Your task to perform on an android device: open app "AliExpress" (install if not already installed) Image 0: 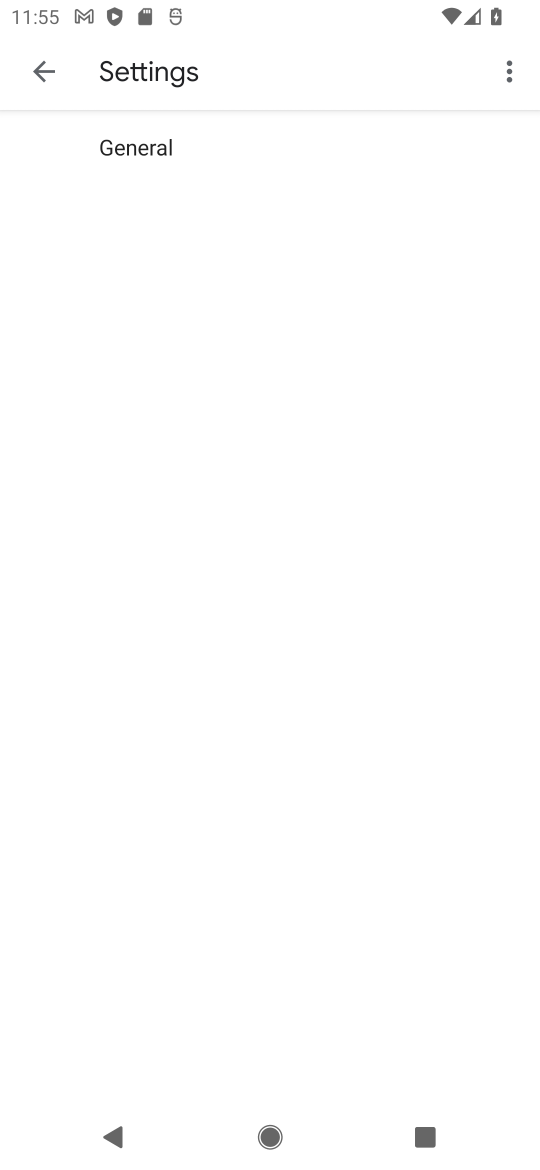
Step 0: press home button
Your task to perform on an android device: open app "AliExpress" (install if not already installed) Image 1: 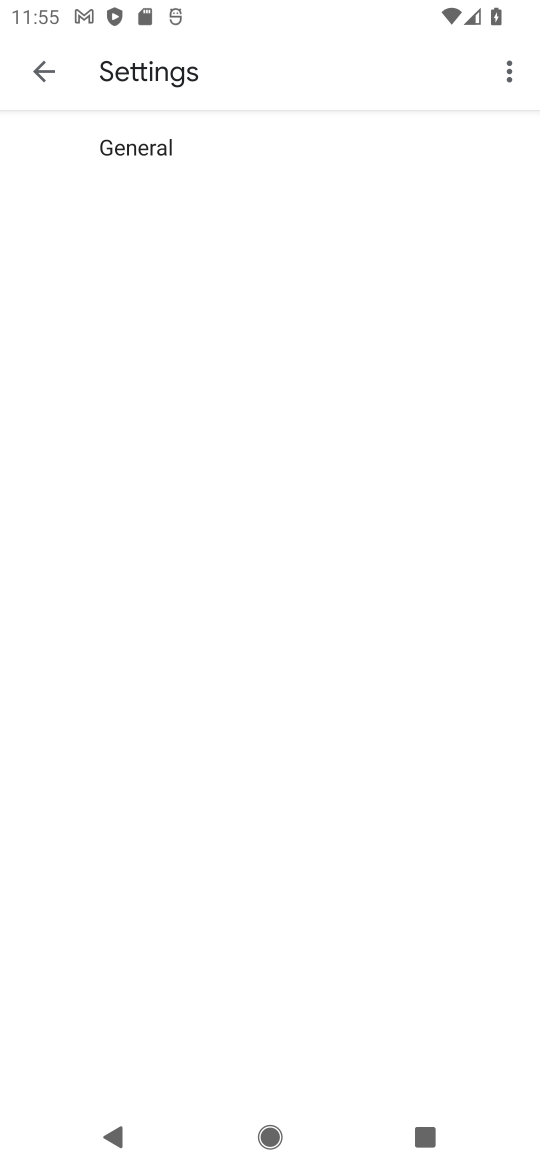
Step 1: press home button
Your task to perform on an android device: open app "AliExpress" (install if not already installed) Image 2: 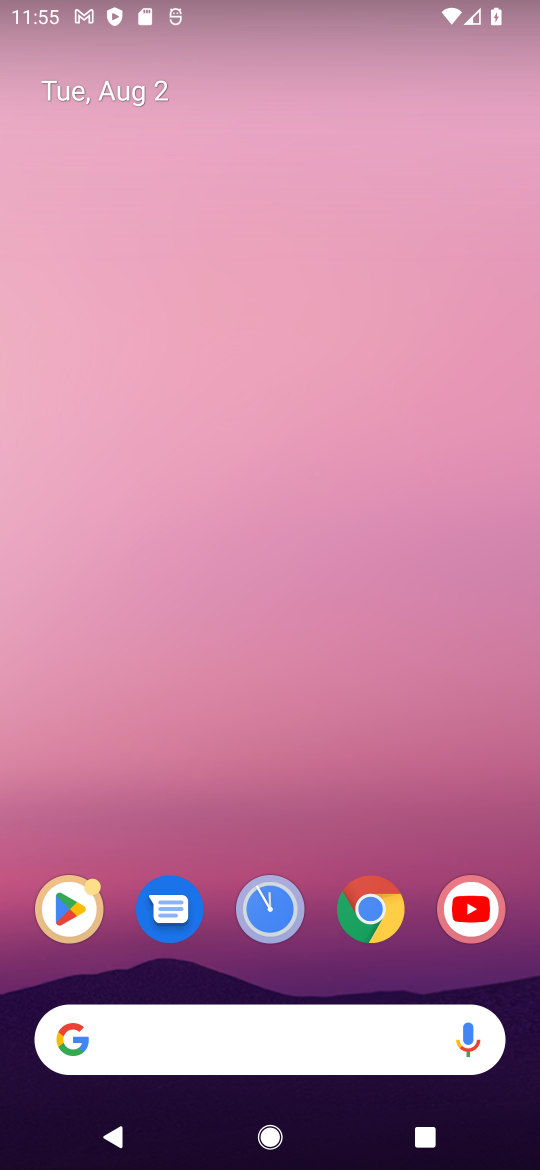
Step 2: click (89, 900)
Your task to perform on an android device: open app "AliExpress" (install if not already installed) Image 3: 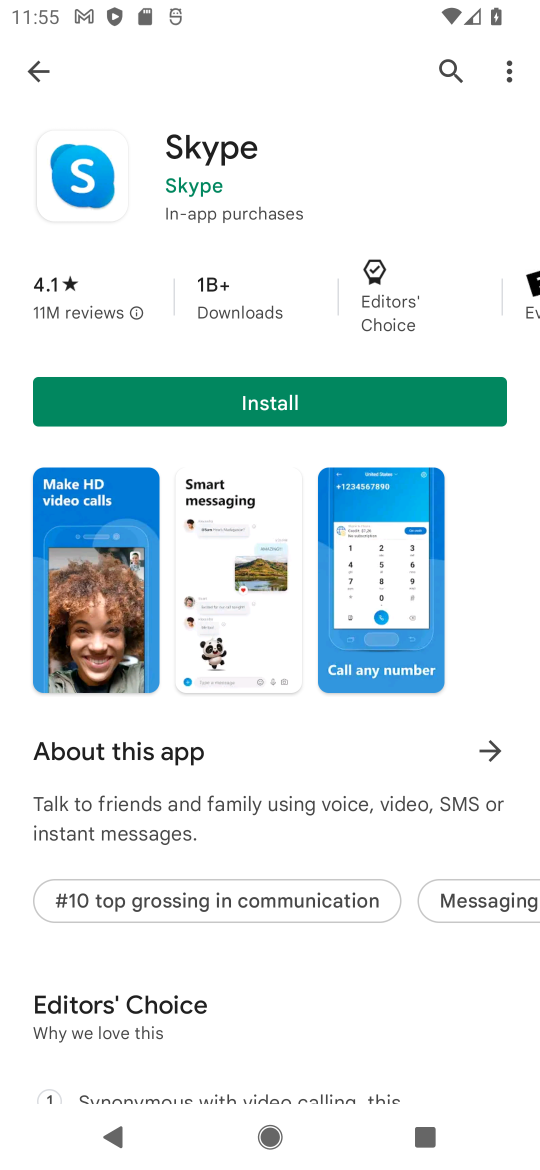
Step 3: click (457, 59)
Your task to perform on an android device: open app "AliExpress" (install if not already installed) Image 4: 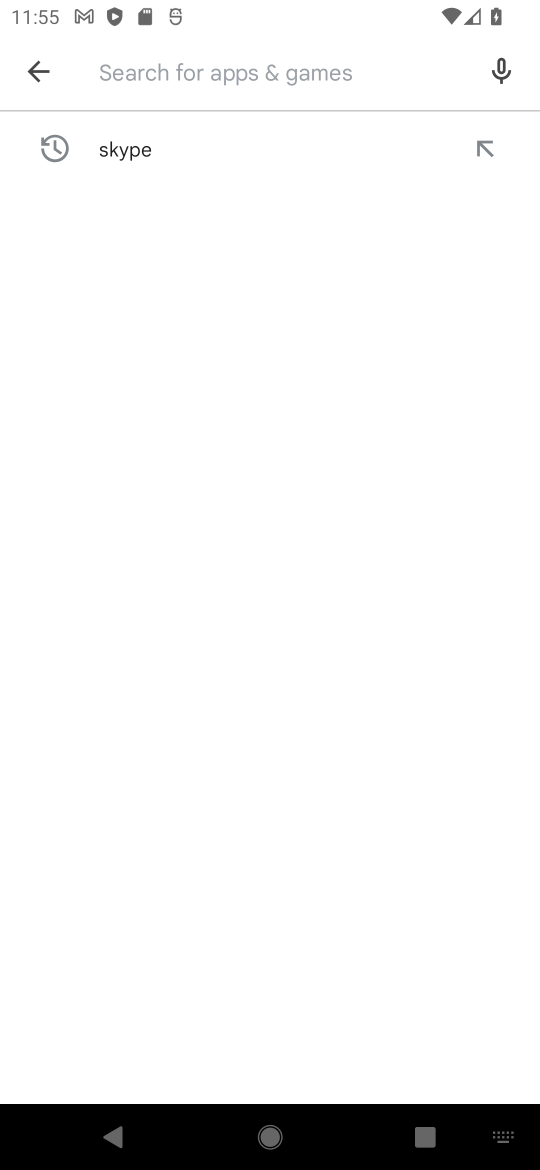
Step 4: type "AliExpress"
Your task to perform on an android device: open app "AliExpress" (install if not already installed) Image 5: 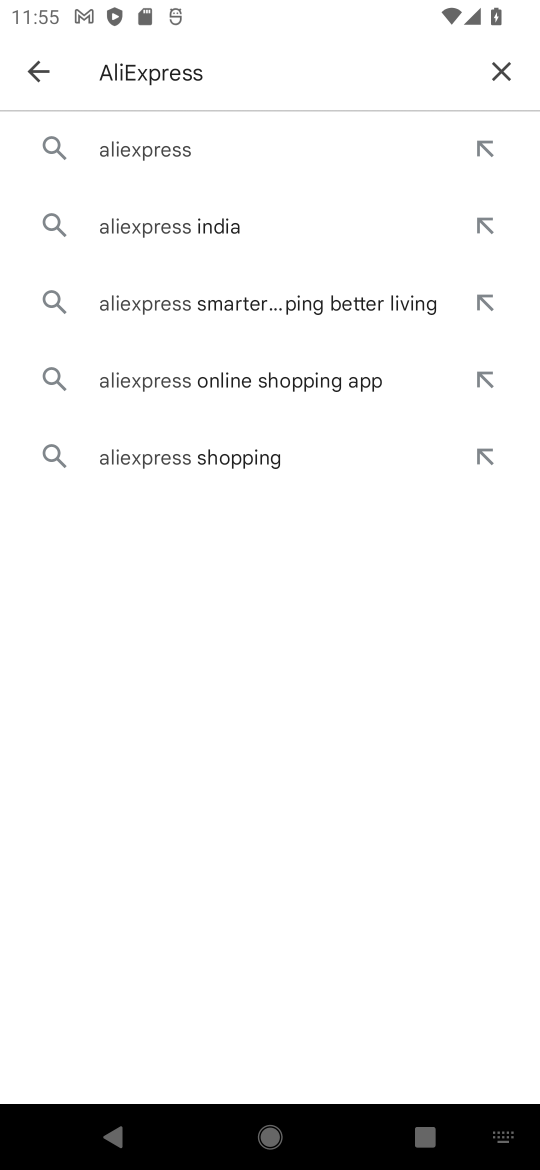
Step 5: click (190, 160)
Your task to perform on an android device: open app "AliExpress" (install if not already installed) Image 6: 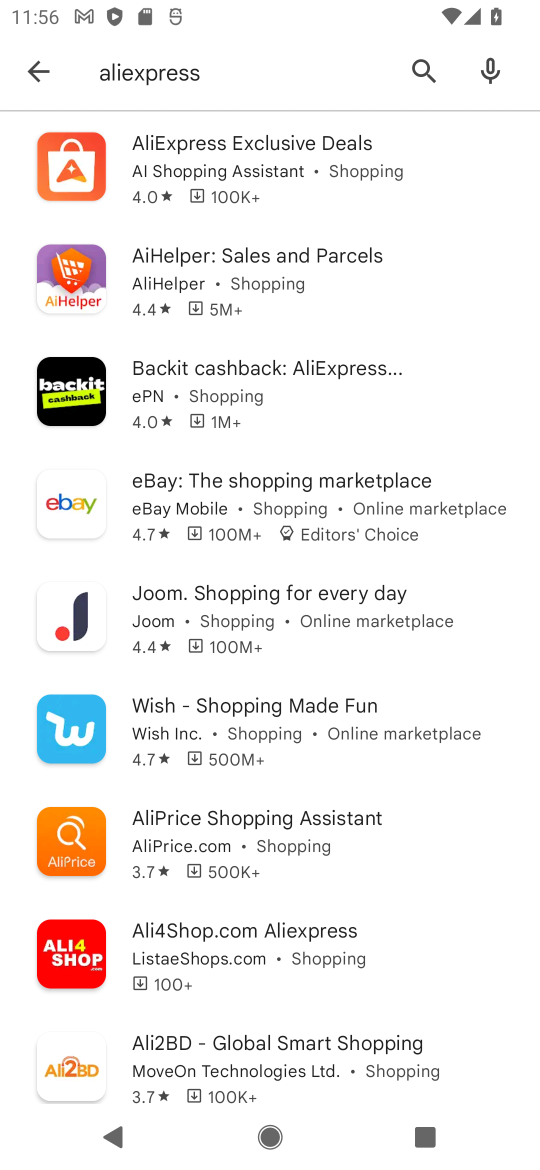
Step 6: click (143, 188)
Your task to perform on an android device: open app "AliExpress" (install if not already installed) Image 7: 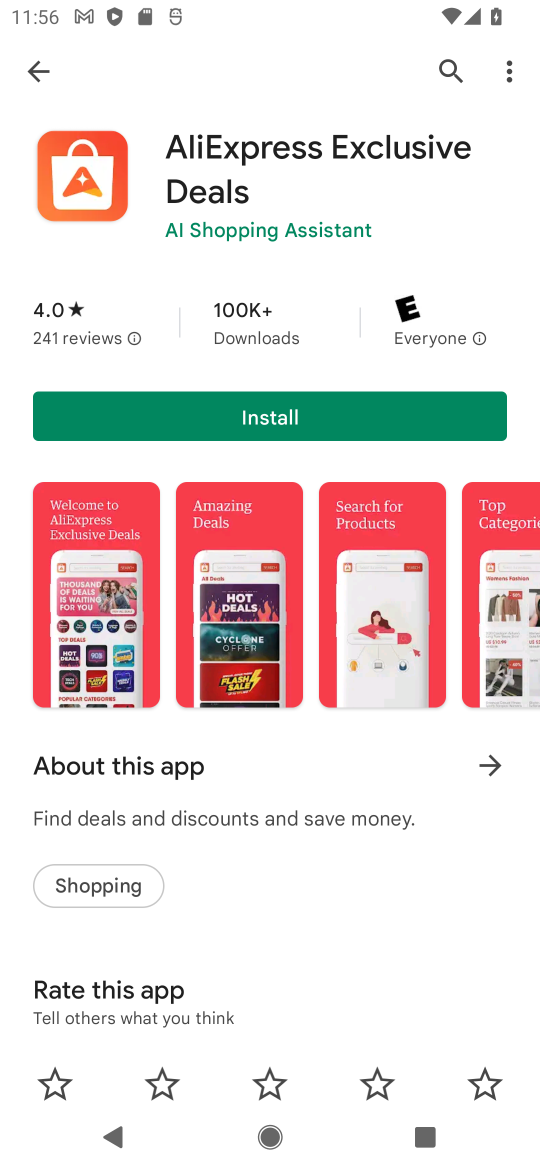
Step 7: click (205, 409)
Your task to perform on an android device: open app "AliExpress" (install if not already installed) Image 8: 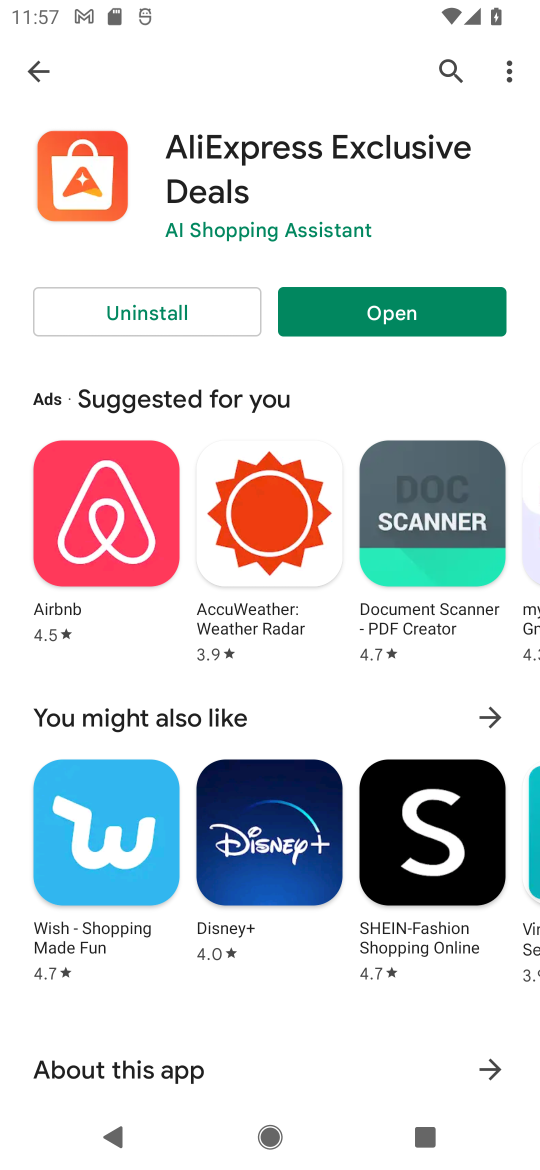
Step 8: click (354, 303)
Your task to perform on an android device: open app "AliExpress" (install if not already installed) Image 9: 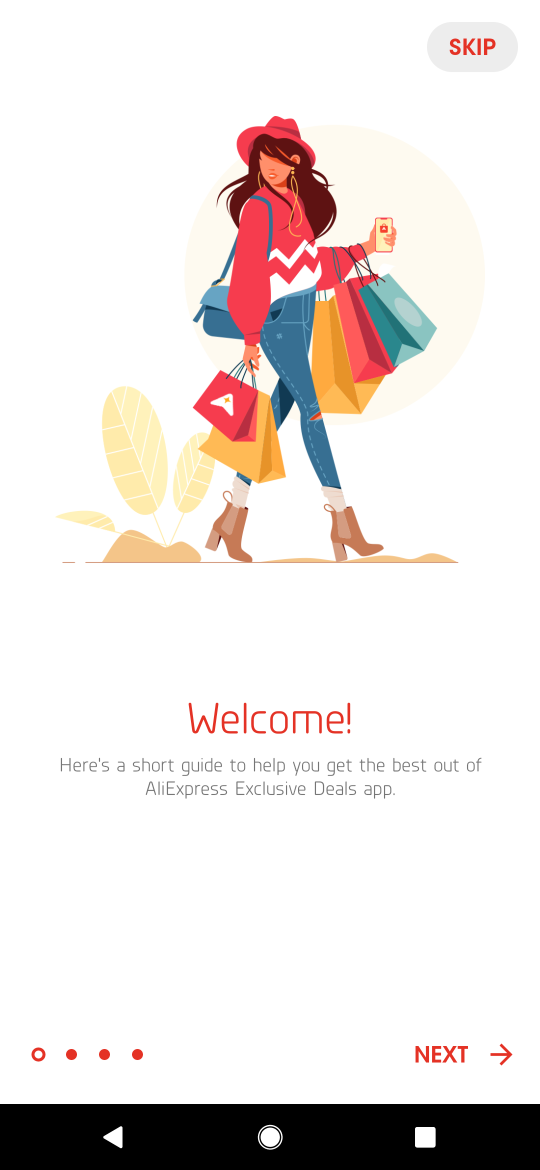
Step 9: task complete